Your task to perform on an android device: Open the web browser Image 0: 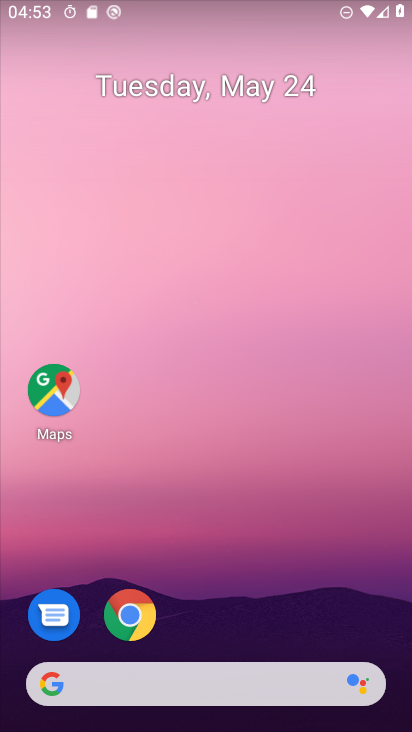
Step 0: click (148, 616)
Your task to perform on an android device: Open the web browser Image 1: 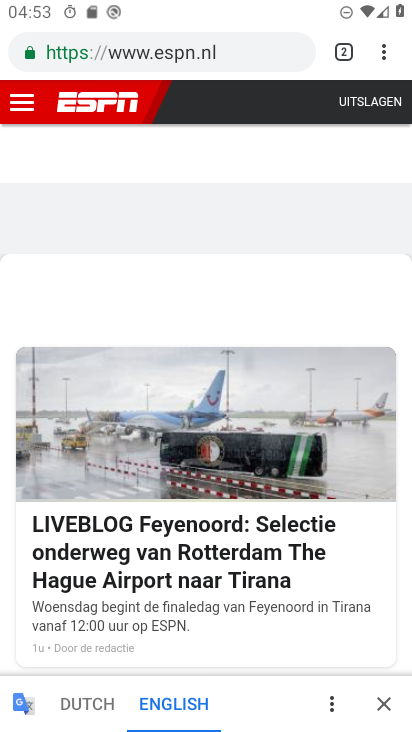
Step 1: task complete